Your task to perform on an android device: empty trash in google photos Image 0: 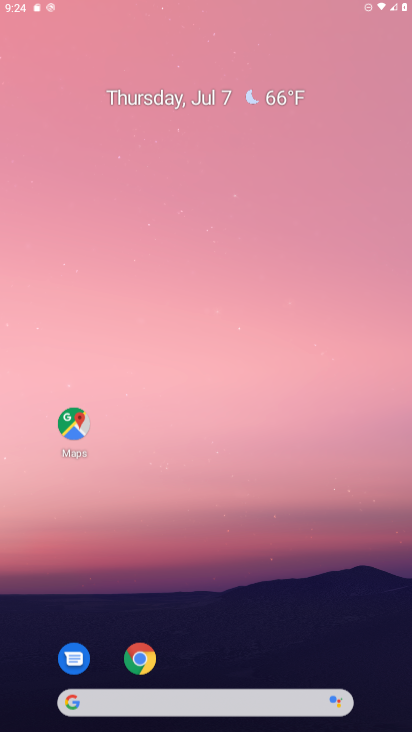
Step 0: drag from (342, 652) to (220, 6)
Your task to perform on an android device: empty trash in google photos Image 1: 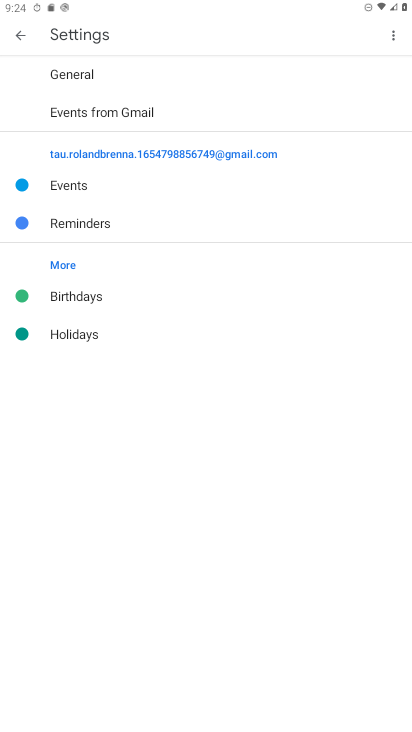
Step 1: press home button
Your task to perform on an android device: empty trash in google photos Image 2: 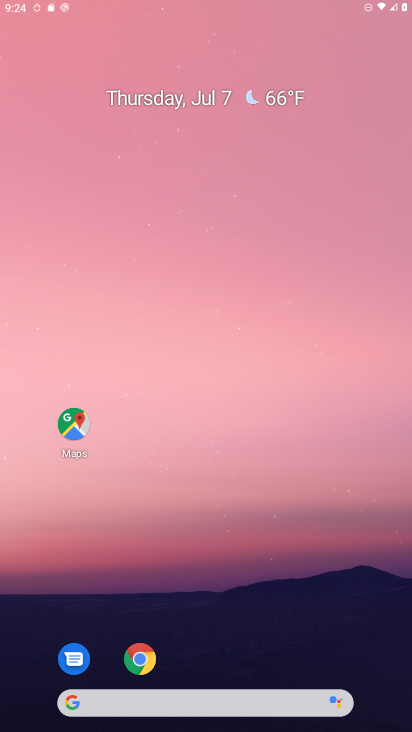
Step 2: drag from (396, 657) to (215, 18)
Your task to perform on an android device: empty trash in google photos Image 3: 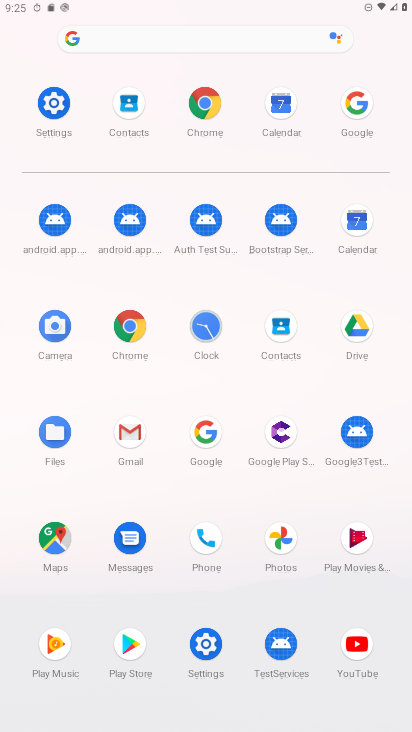
Step 3: click (284, 528)
Your task to perform on an android device: empty trash in google photos Image 4: 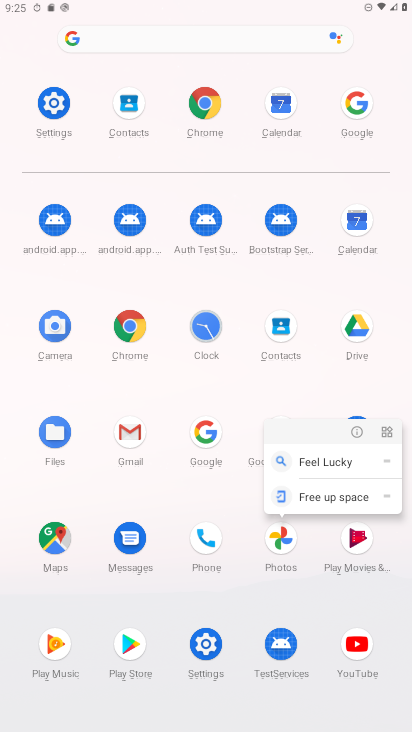
Step 4: click (281, 536)
Your task to perform on an android device: empty trash in google photos Image 5: 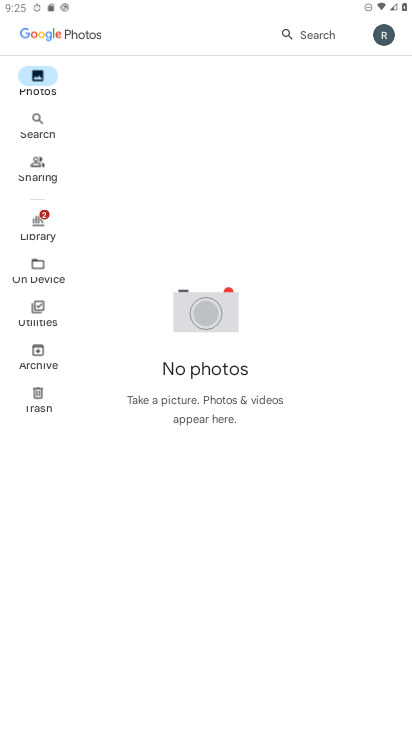
Step 5: click (34, 377)
Your task to perform on an android device: empty trash in google photos Image 6: 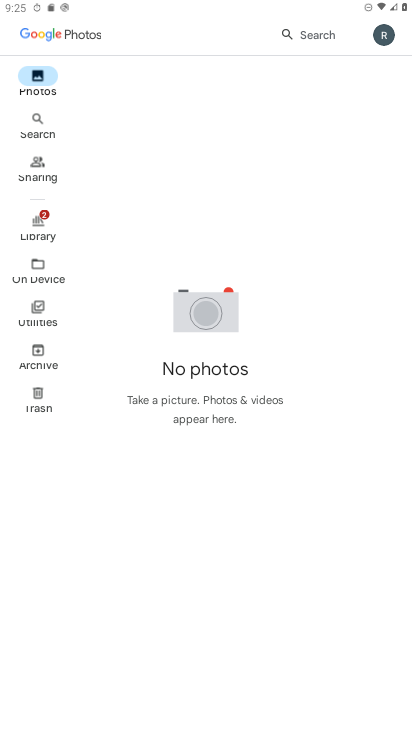
Step 6: click (32, 393)
Your task to perform on an android device: empty trash in google photos Image 7: 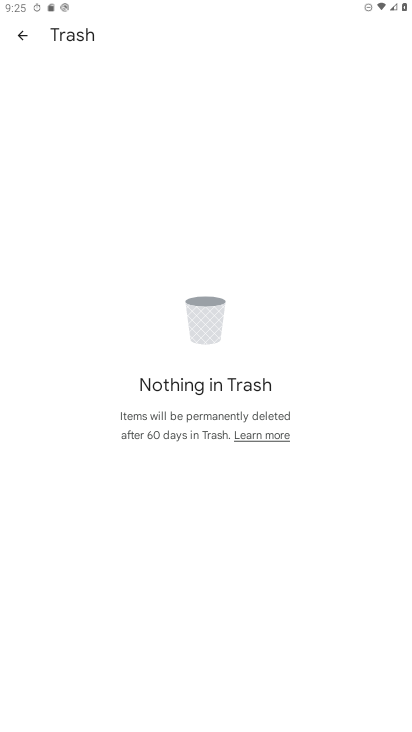
Step 7: task complete